Your task to perform on an android device: Search for sushi restaurants on Maps Image 0: 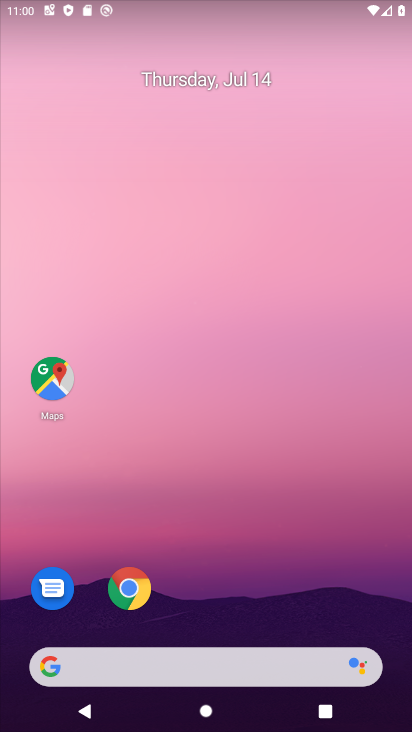
Step 0: drag from (373, 622) to (322, 153)
Your task to perform on an android device: Search for sushi restaurants on Maps Image 1: 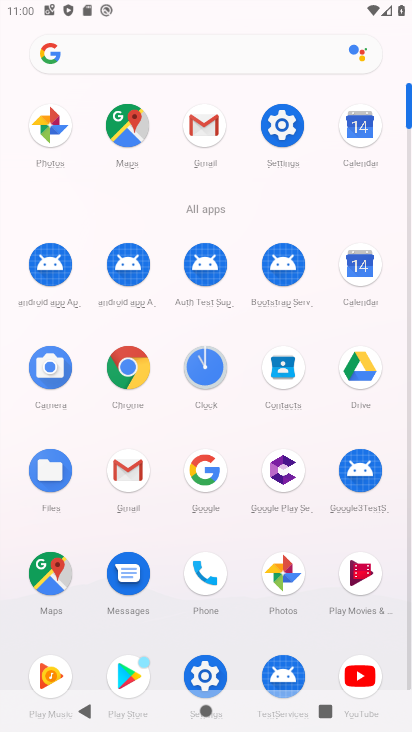
Step 1: click (49, 574)
Your task to perform on an android device: Search for sushi restaurants on Maps Image 2: 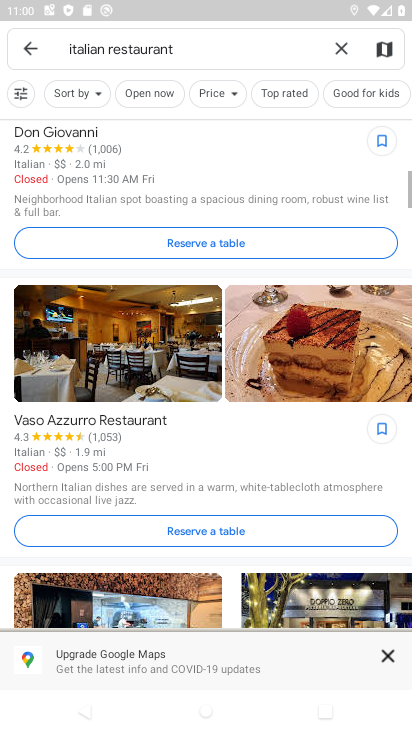
Step 2: click (339, 51)
Your task to perform on an android device: Search for sushi restaurants on Maps Image 3: 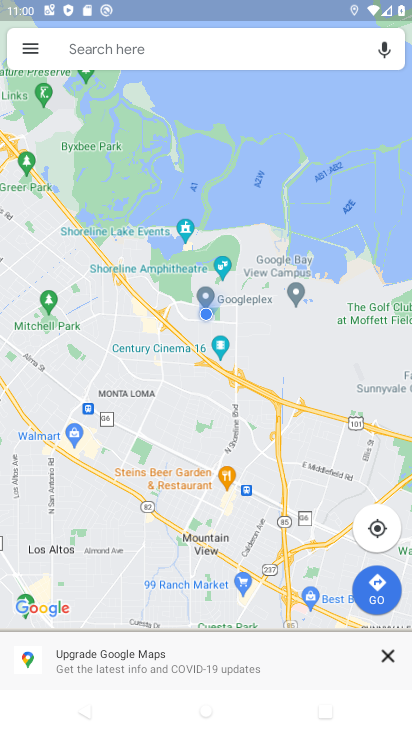
Step 3: click (95, 41)
Your task to perform on an android device: Search for sushi restaurants on Maps Image 4: 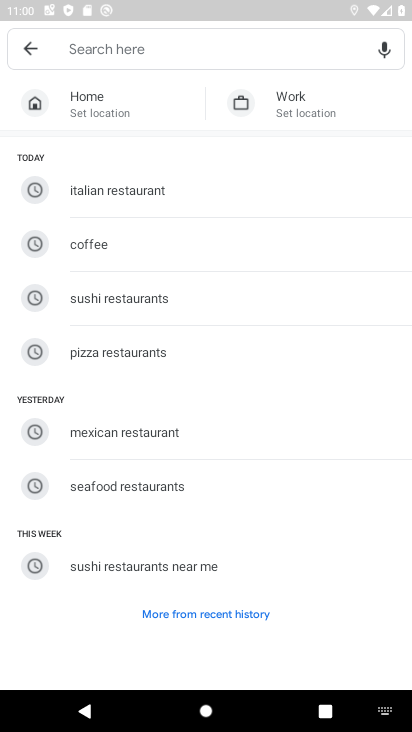
Step 4: type "sushi restaurants"
Your task to perform on an android device: Search for sushi restaurants on Maps Image 5: 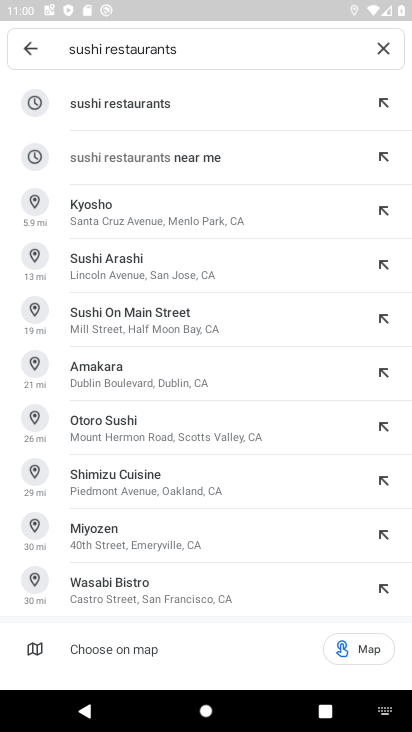
Step 5: click (93, 102)
Your task to perform on an android device: Search for sushi restaurants on Maps Image 6: 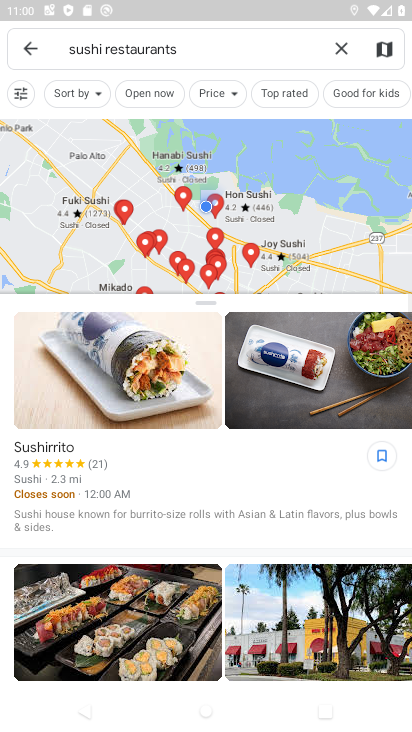
Step 6: task complete